Your task to perform on an android device: toggle location history Image 0: 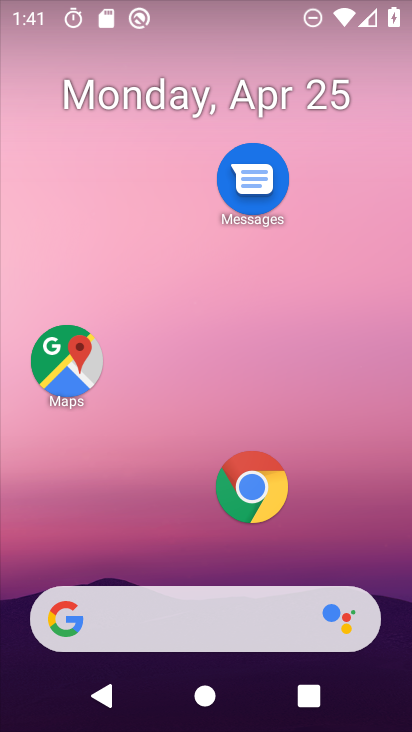
Step 0: drag from (277, 643) to (267, 244)
Your task to perform on an android device: toggle location history Image 1: 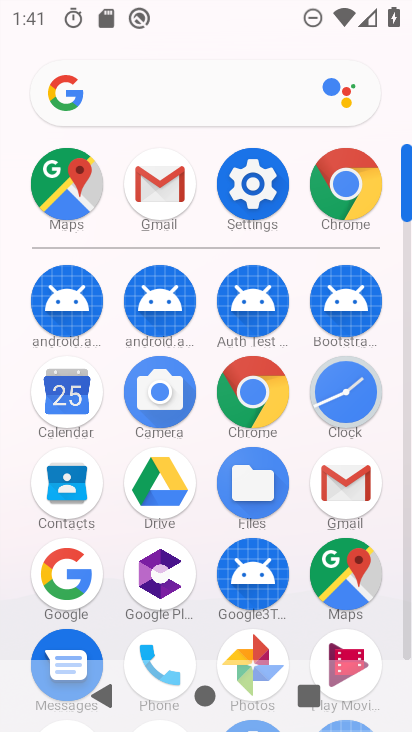
Step 1: click (260, 177)
Your task to perform on an android device: toggle location history Image 2: 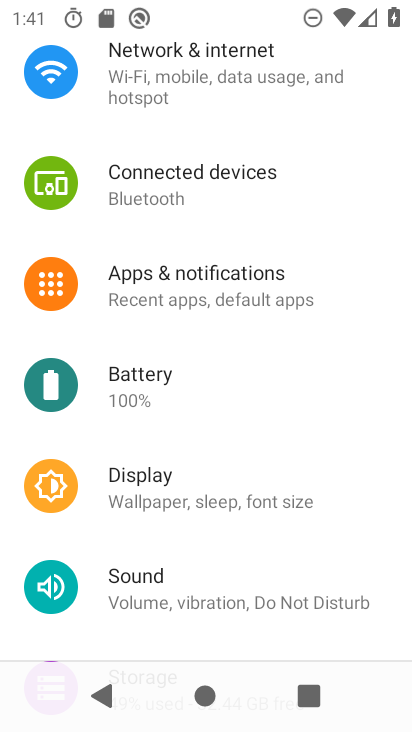
Step 2: drag from (188, 598) to (213, 199)
Your task to perform on an android device: toggle location history Image 3: 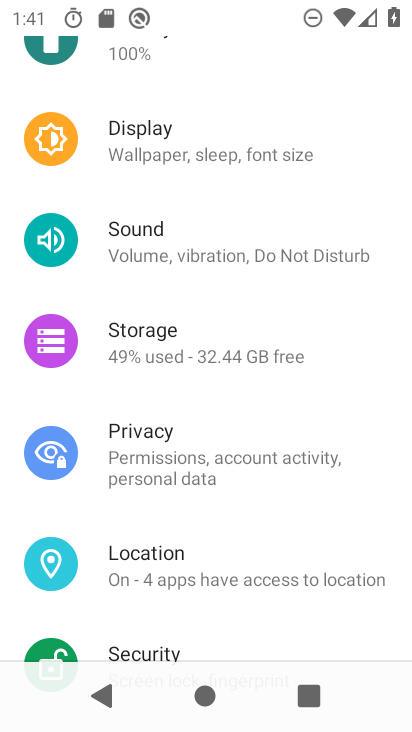
Step 3: click (221, 559)
Your task to perform on an android device: toggle location history Image 4: 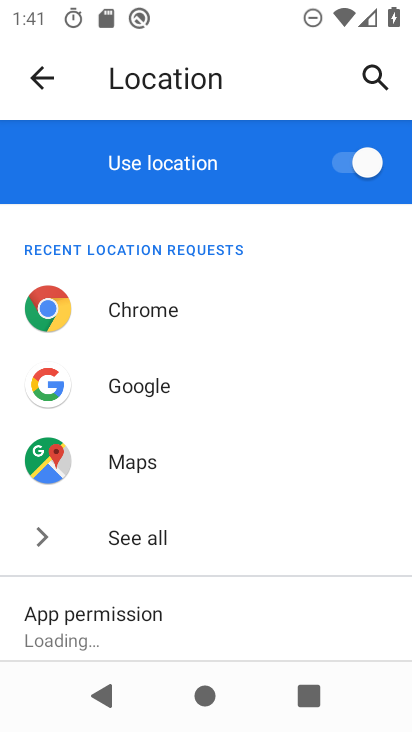
Step 4: drag from (212, 602) to (258, 341)
Your task to perform on an android device: toggle location history Image 5: 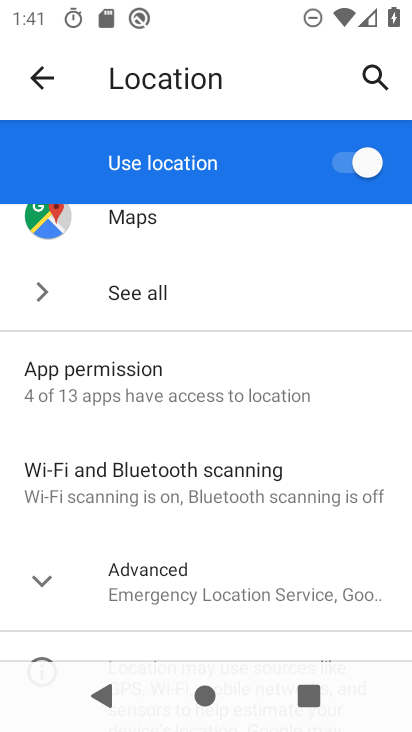
Step 5: drag from (238, 597) to (255, 558)
Your task to perform on an android device: toggle location history Image 6: 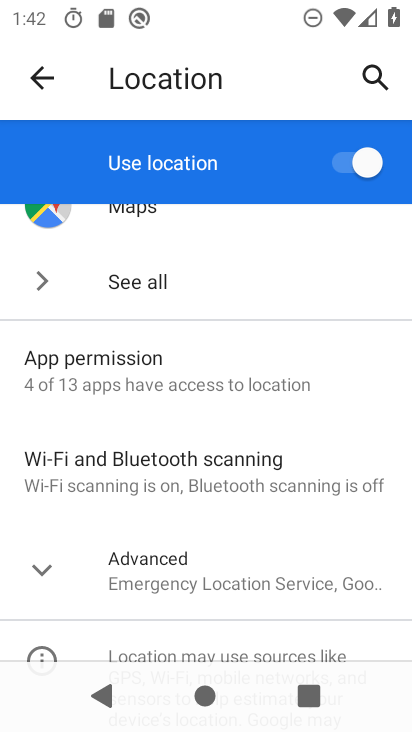
Step 6: click (278, 560)
Your task to perform on an android device: toggle location history Image 7: 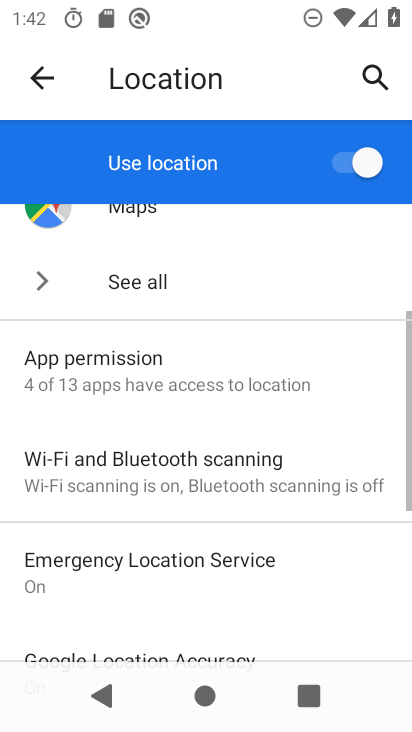
Step 7: drag from (274, 581) to (278, 276)
Your task to perform on an android device: toggle location history Image 8: 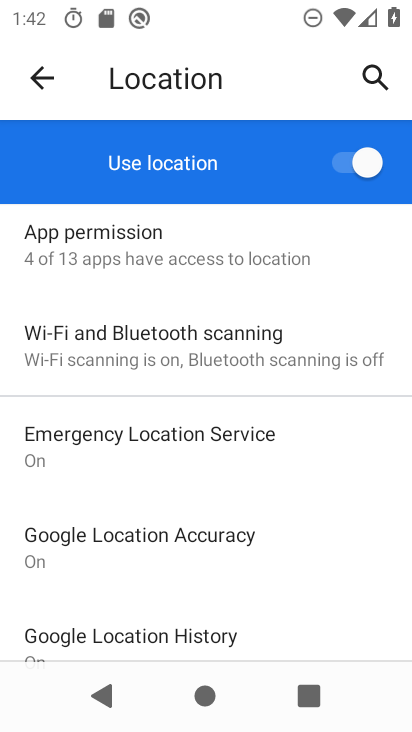
Step 8: click (192, 632)
Your task to perform on an android device: toggle location history Image 9: 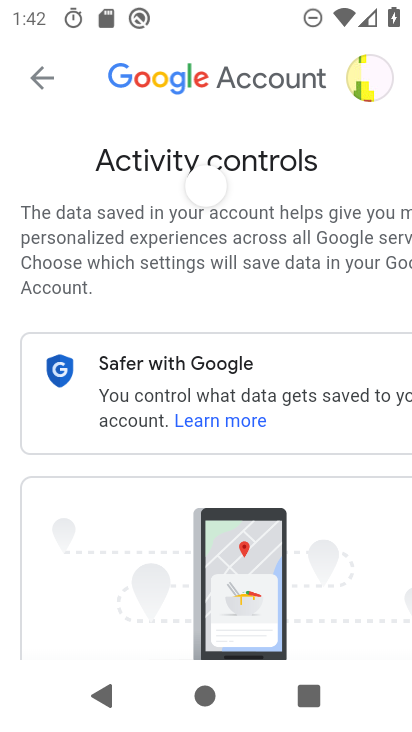
Step 9: drag from (315, 633) to (322, 271)
Your task to perform on an android device: toggle location history Image 10: 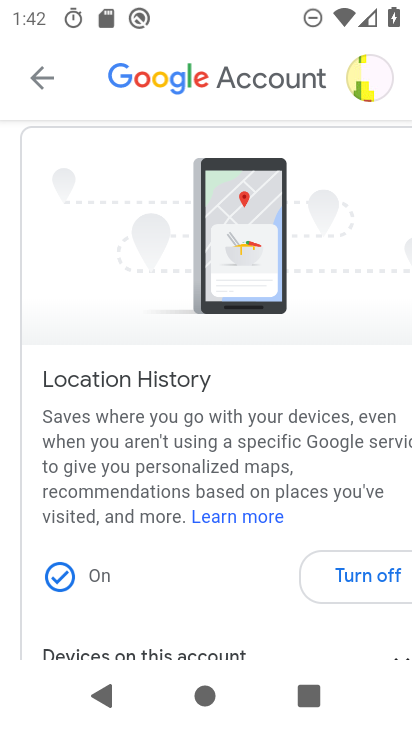
Step 10: drag from (324, 571) to (315, 257)
Your task to perform on an android device: toggle location history Image 11: 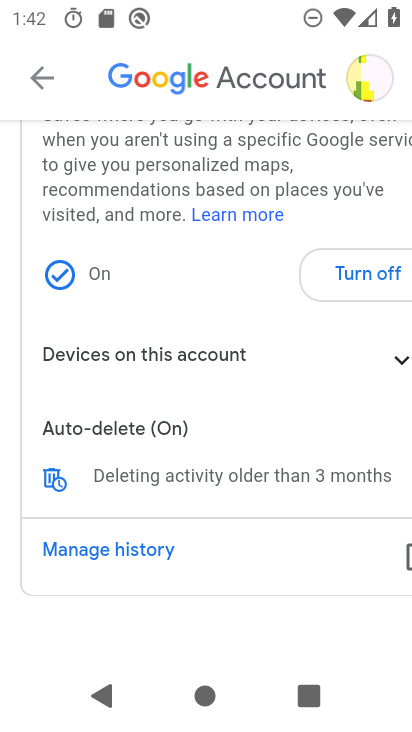
Step 11: click (355, 269)
Your task to perform on an android device: toggle location history Image 12: 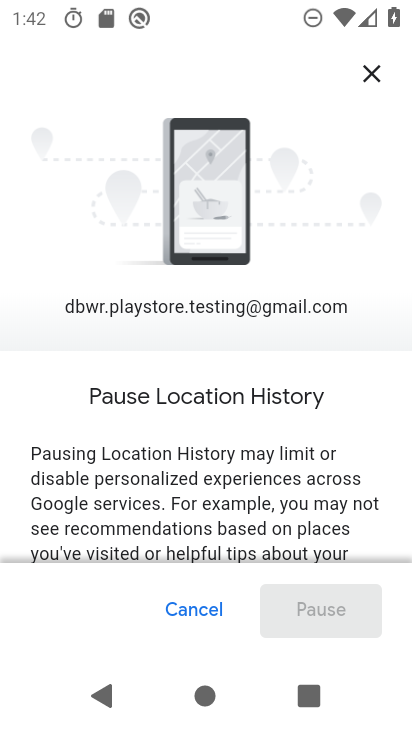
Step 12: task complete